Your task to perform on an android device: Open Amazon Image 0: 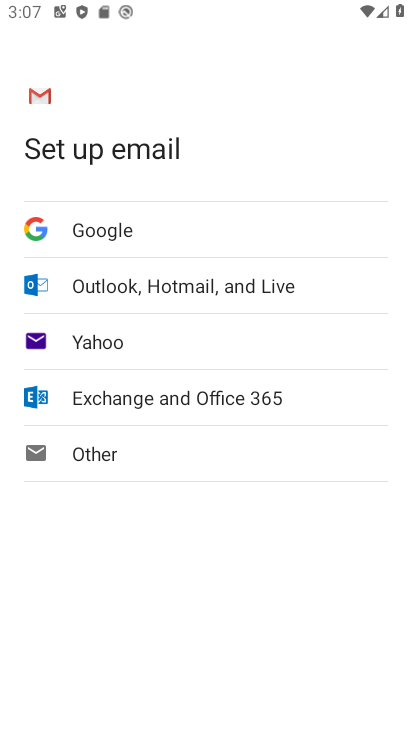
Step 0: press home button
Your task to perform on an android device: Open Amazon Image 1: 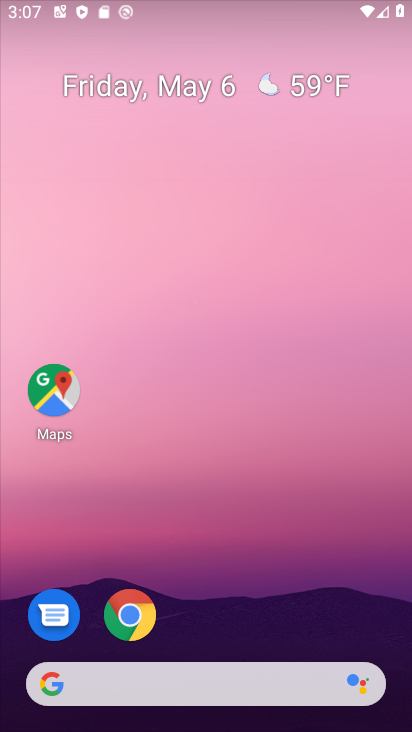
Step 1: drag from (274, 545) to (317, 187)
Your task to perform on an android device: Open Amazon Image 2: 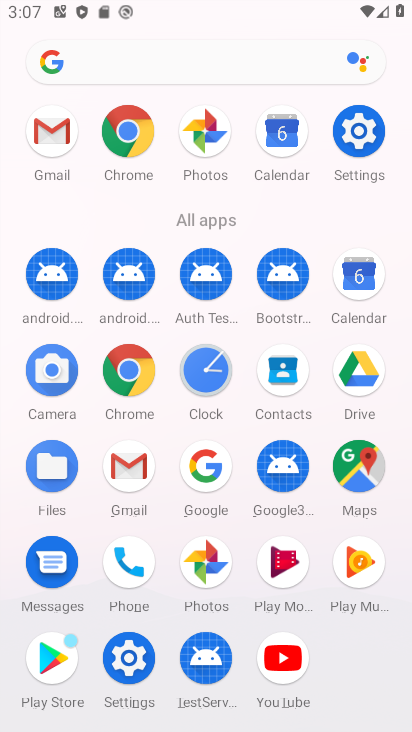
Step 2: click (120, 372)
Your task to perform on an android device: Open Amazon Image 3: 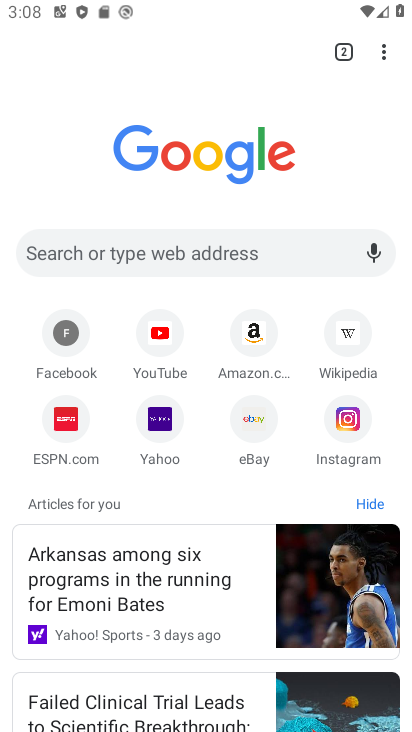
Step 3: click (250, 337)
Your task to perform on an android device: Open Amazon Image 4: 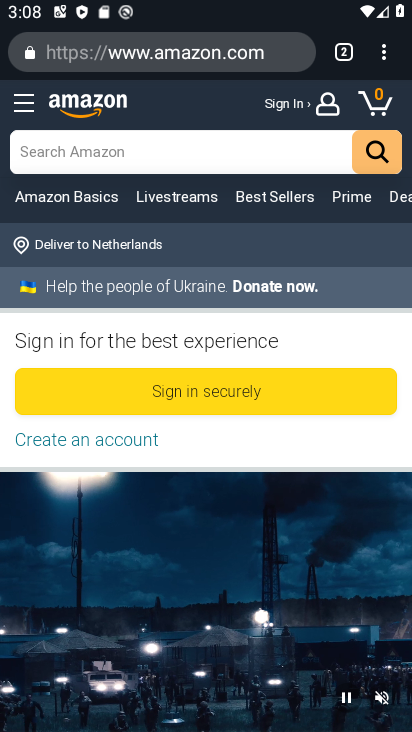
Step 4: task complete